Your task to perform on an android device: toggle sleep mode Image 0: 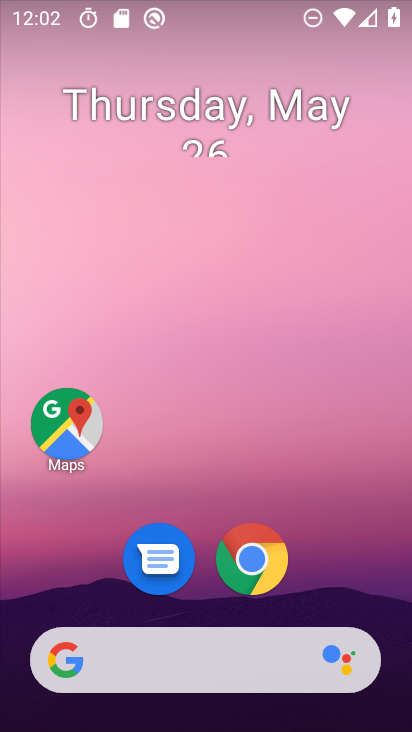
Step 0: drag from (336, 553) to (353, 115)
Your task to perform on an android device: toggle sleep mode Image 1: 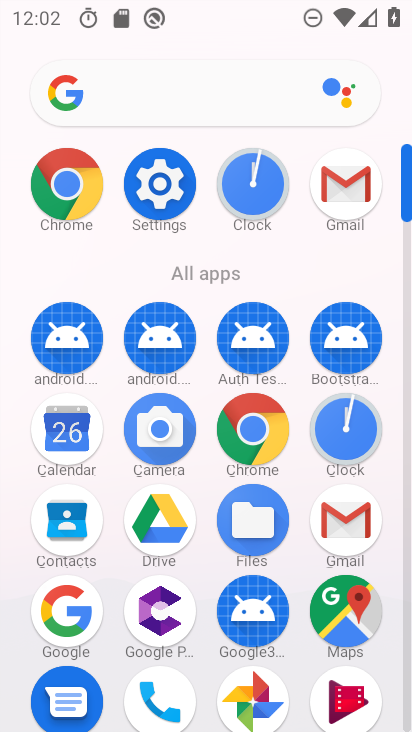
Step 1: click (161, 200)
Your task to perform on an android device: toggle sleep mode Image 2: 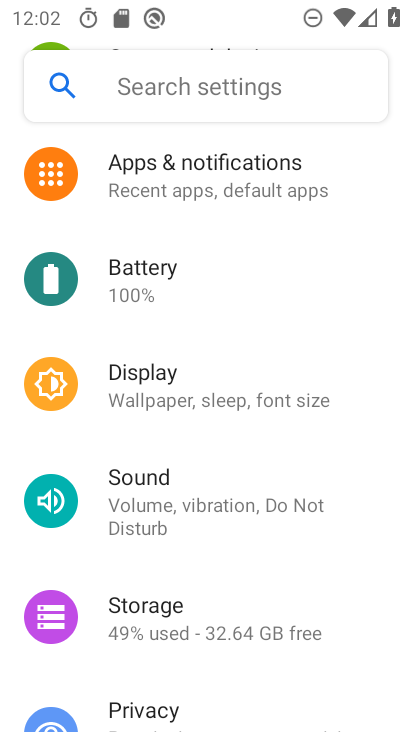
Step 2: click (182, 103)
Your task to perform on an android device: toggle sleep mode Image 3: 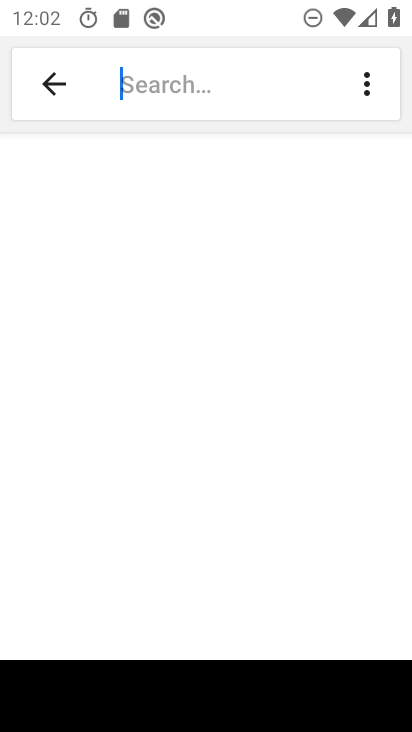
Step 3: type "sleep mode"
Your task to perform on an android device: toggle sleep mode Image 4: 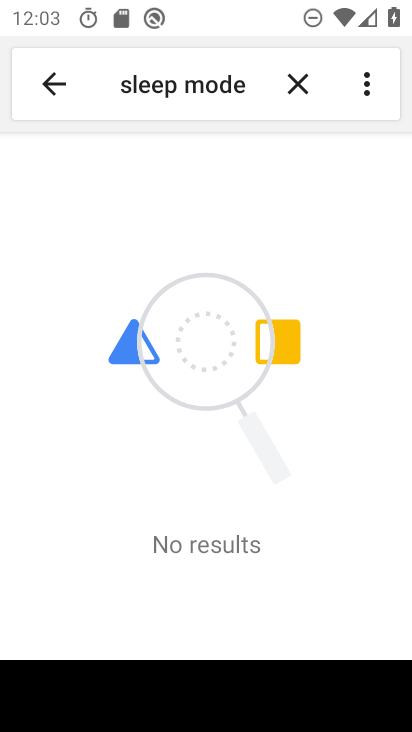
Step 4: task complete